Your task to perform on an android device: What is the recent news? Image 0: 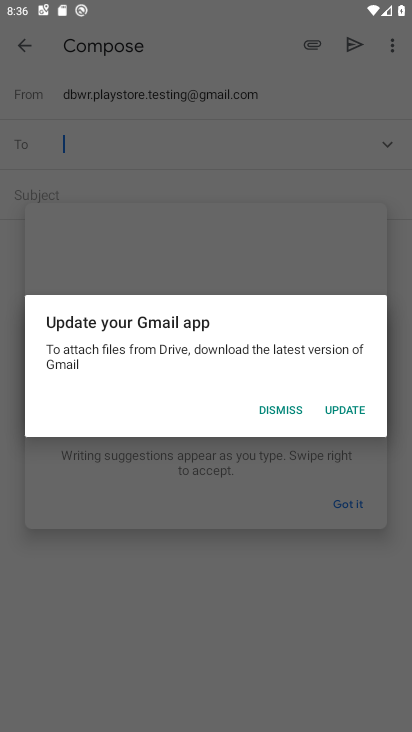
Step 0: press back button
Your task to perform on an android device: What is the recent news? Image 1: 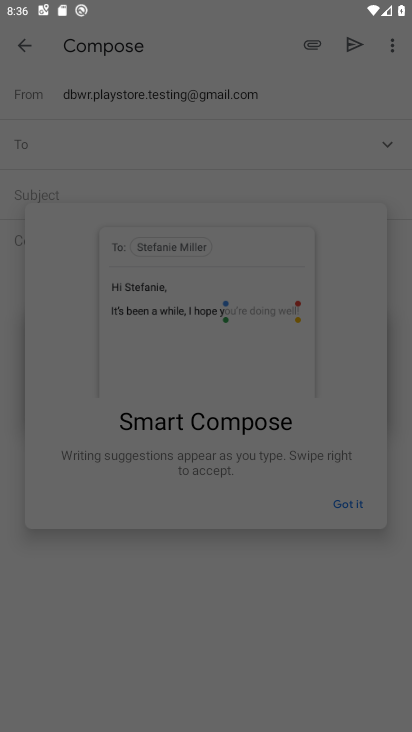
Step 1: task complete